Your task to perform on an android device: turn off sleep mode Image 0: 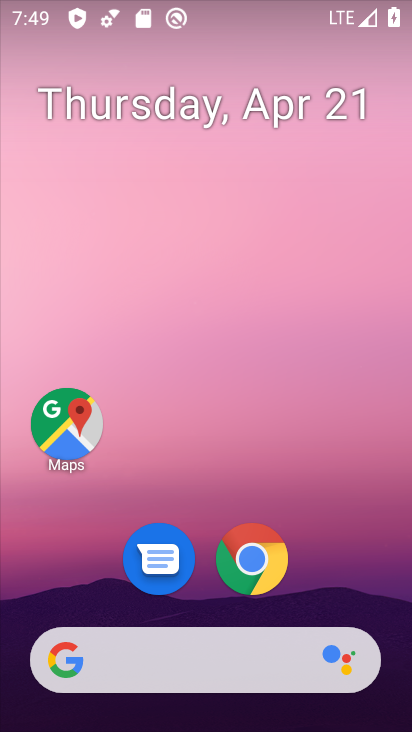
Step 0: drag from (373, 556) to (373, 209)
Your task to perform on an android device: turn off sleep mode Image 1: 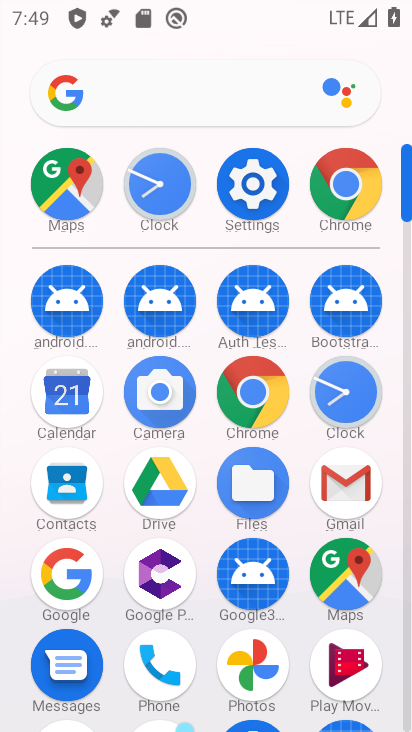
Step 1: click (259, 186)
Your task to perform on an android device: turn off sleep mode Image 2: 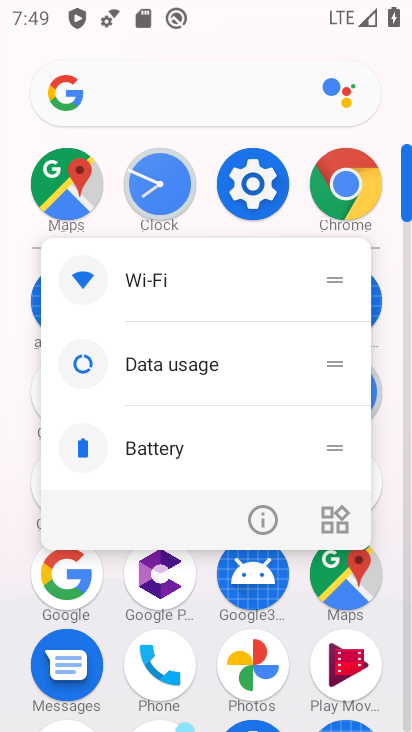
Step 2: click (260, 201)
Your task to perform on an android device: turn off sleep mode Image 3: 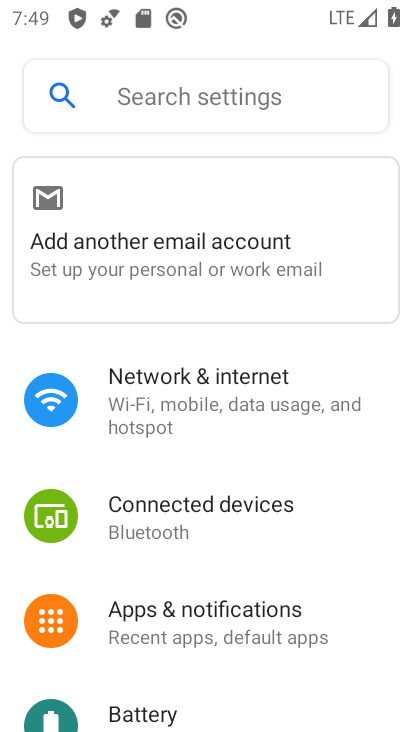
Step 3: click (252, 103)
Your task to perform on an android device: turn off sleep mode Image 4: 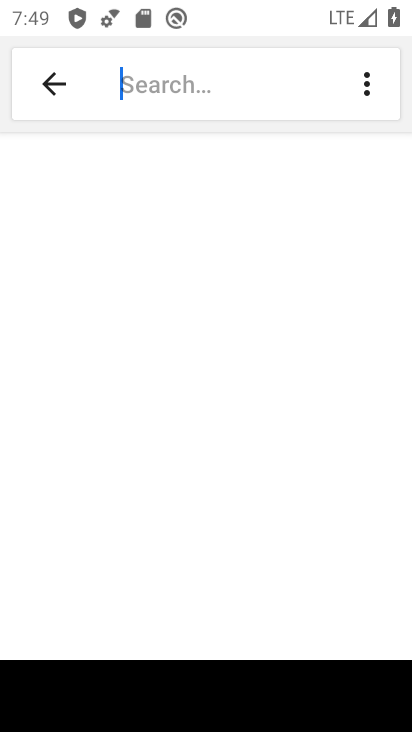
Step 4: type "sleep mode"
Your task to perform on an android device: turn off sleep mode Image 5: 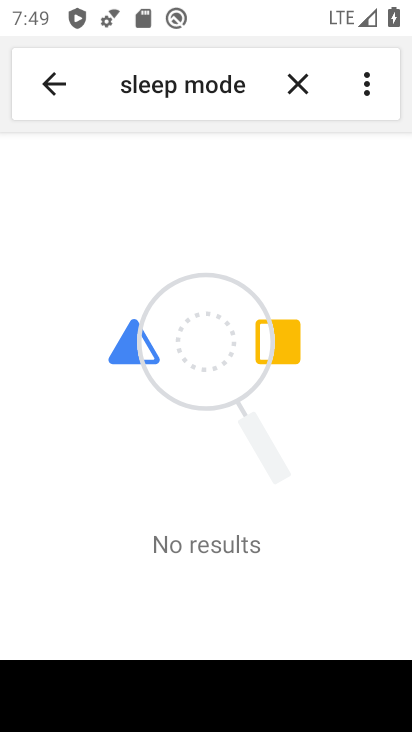
Step 5: task complete